Your task to perform on an android device: What's on the menu at McDonalds? Image 0: 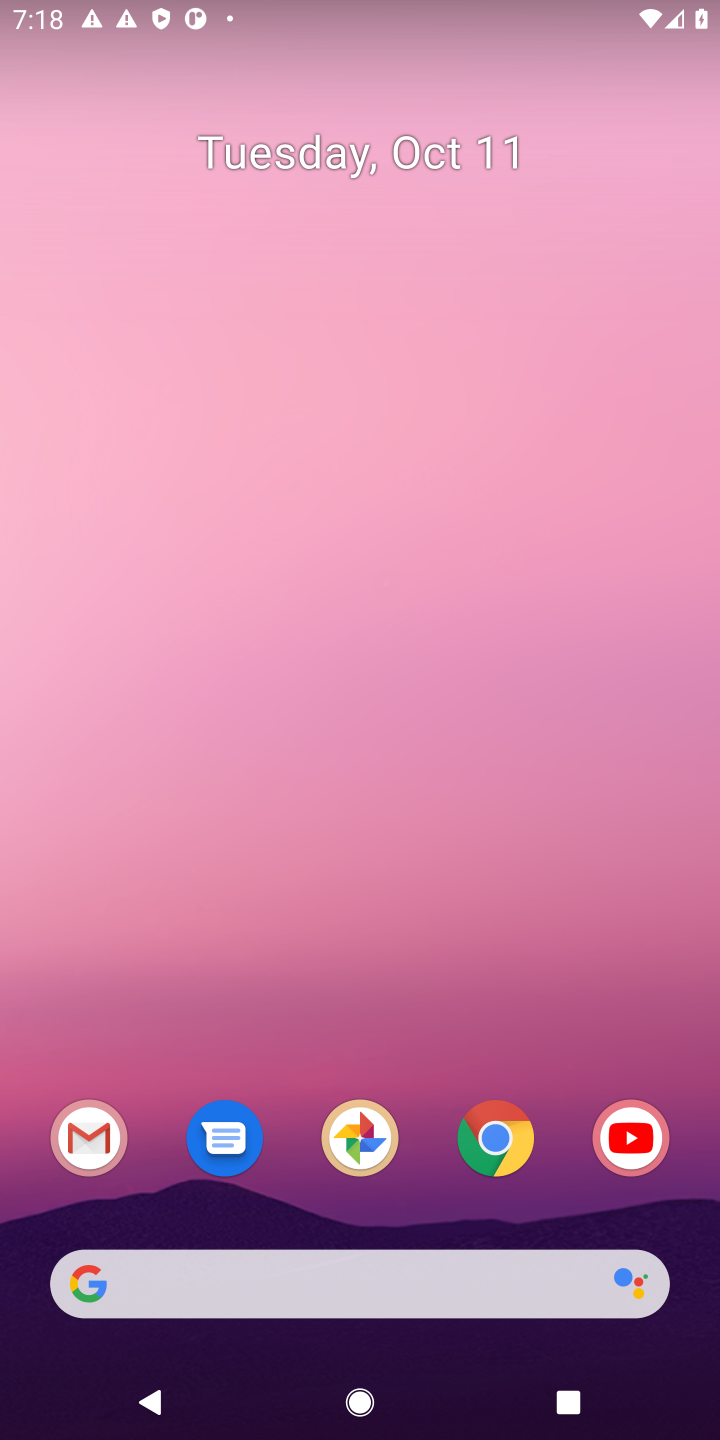
Step 0: click (432, 880)
Your task to perform on an android device: What's on the menu at McDonalds? Image 1: 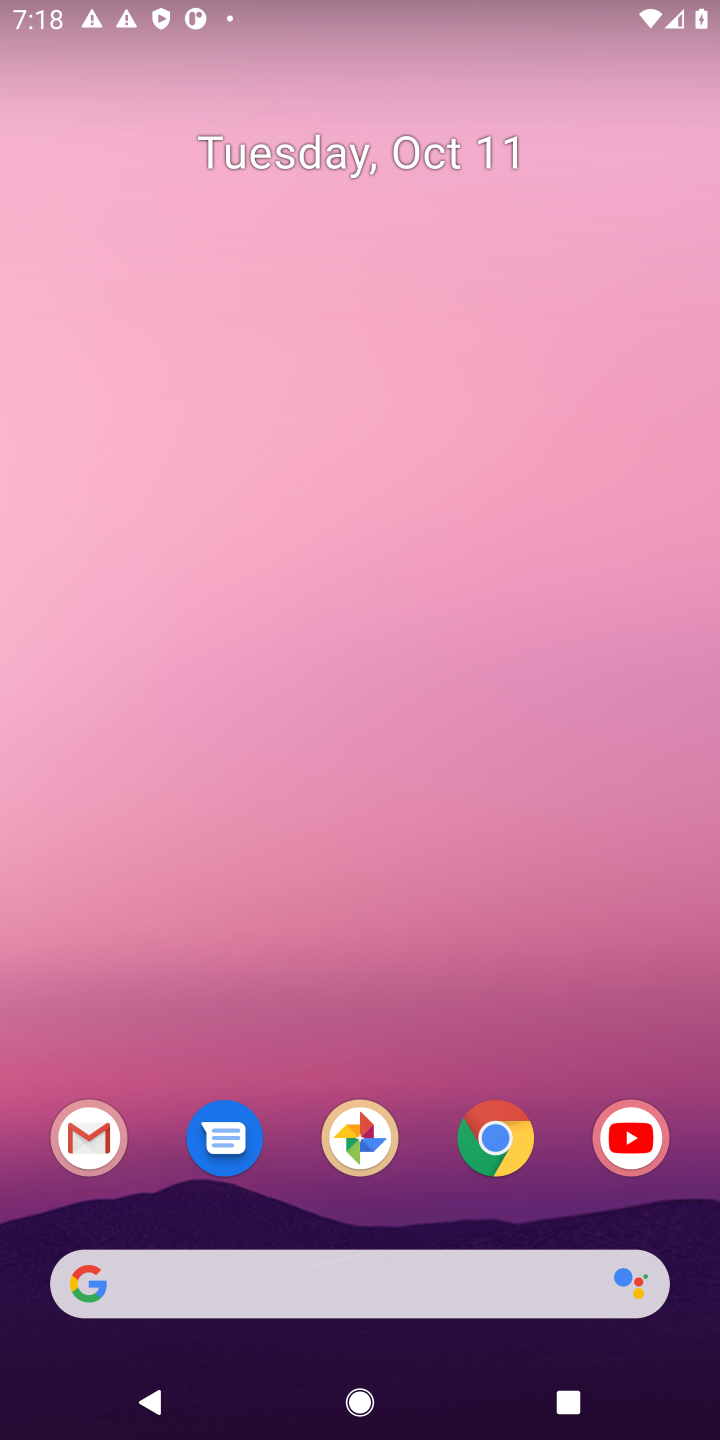
Step 1: click (358, 1280)
Your task to perform on an android device: What's on the menu at McDonalds? Image 2: 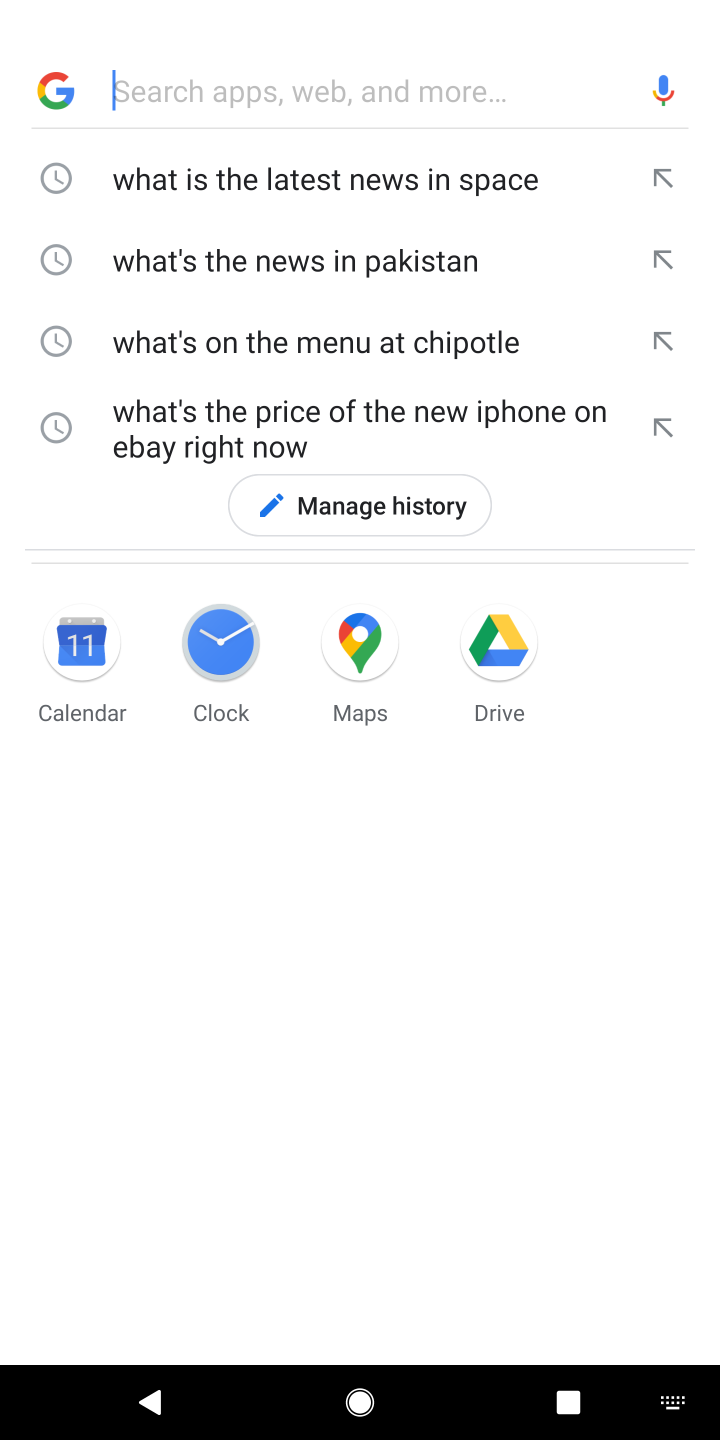
Step 2: type "What's on the menu at McDonalds?"
Your task to perform on an android device: What's on the menu at McDonalds? Image 3: 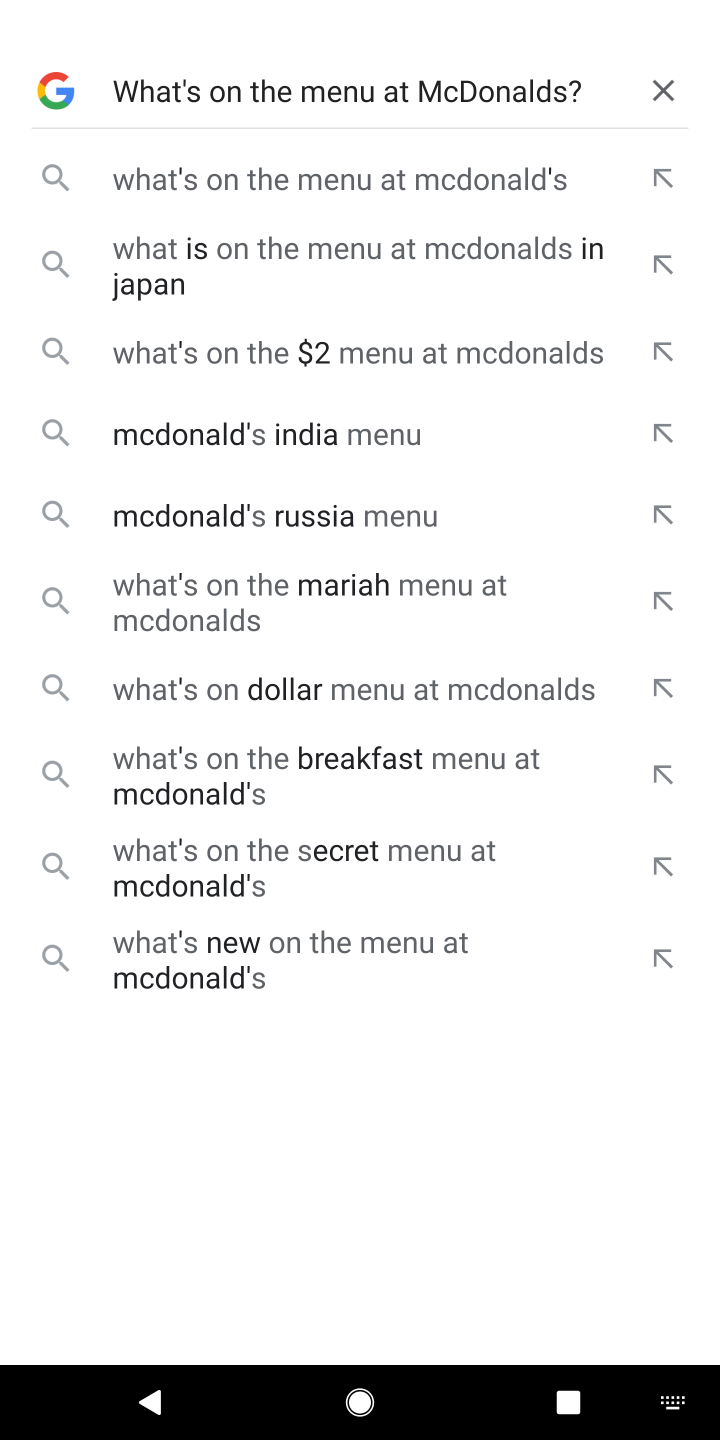
Step 3: click (231, 179)
Your task to perform on an android device: What's on the menu at McDonalds? Image 4: 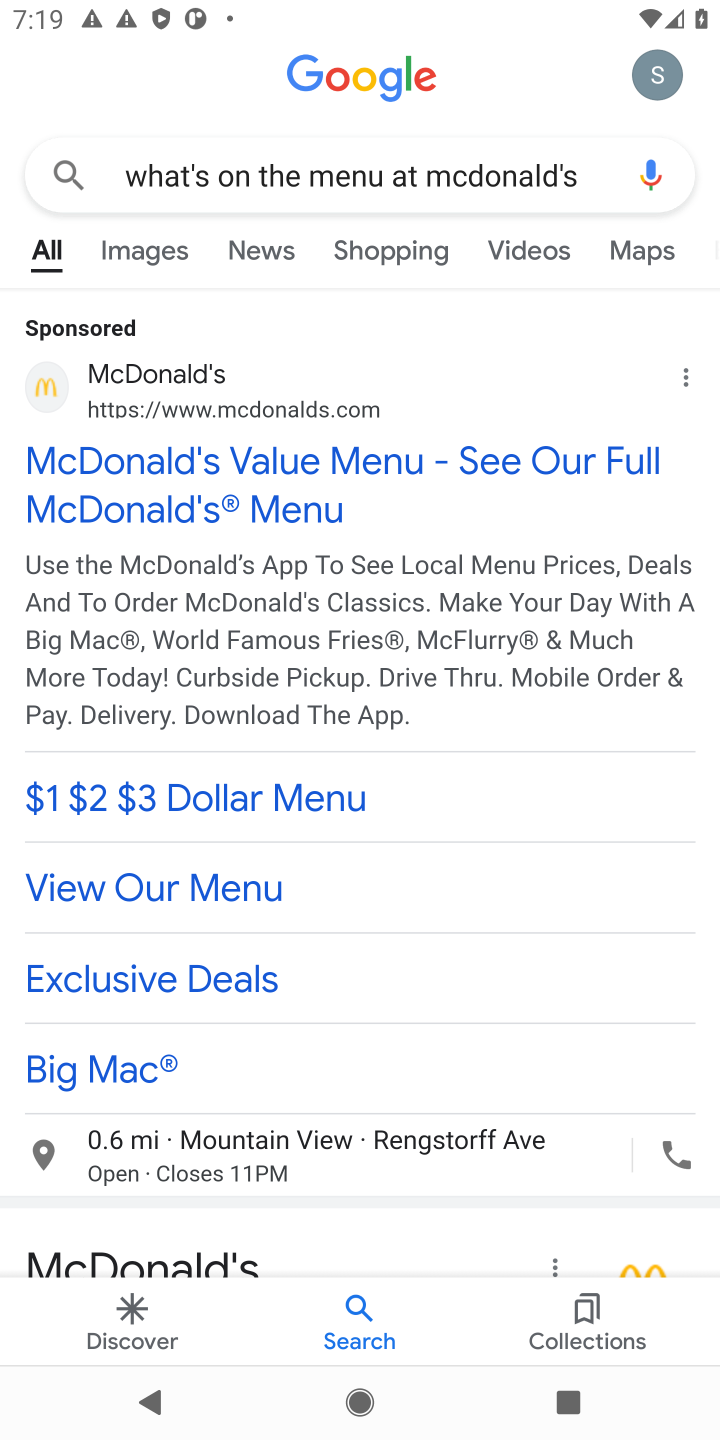
Step 4: click (203, 455)
Your task to perform on an android device: What's on the menu at McDonalds? Image 5: 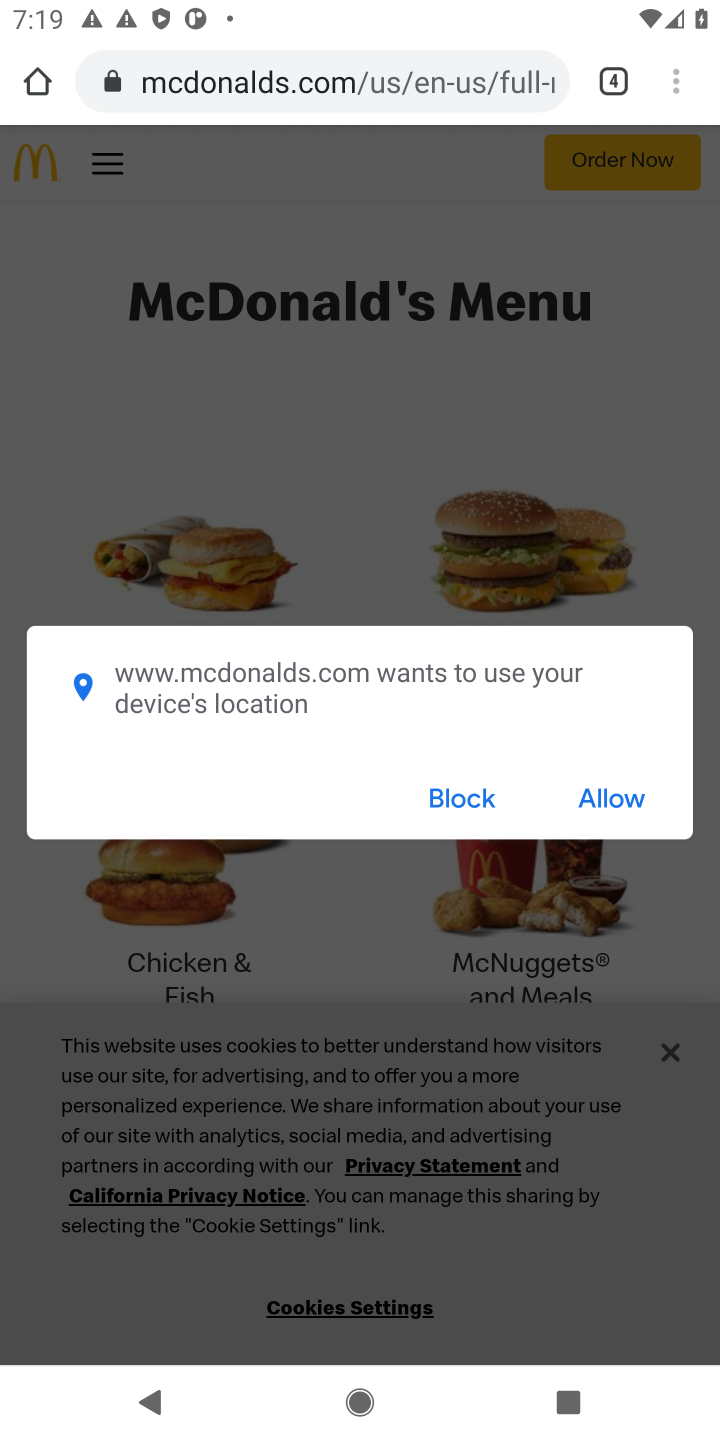
Step 5: click (619, 798)
Your task to perform on an android device: What's on the menu at McDonalds? Image 6: 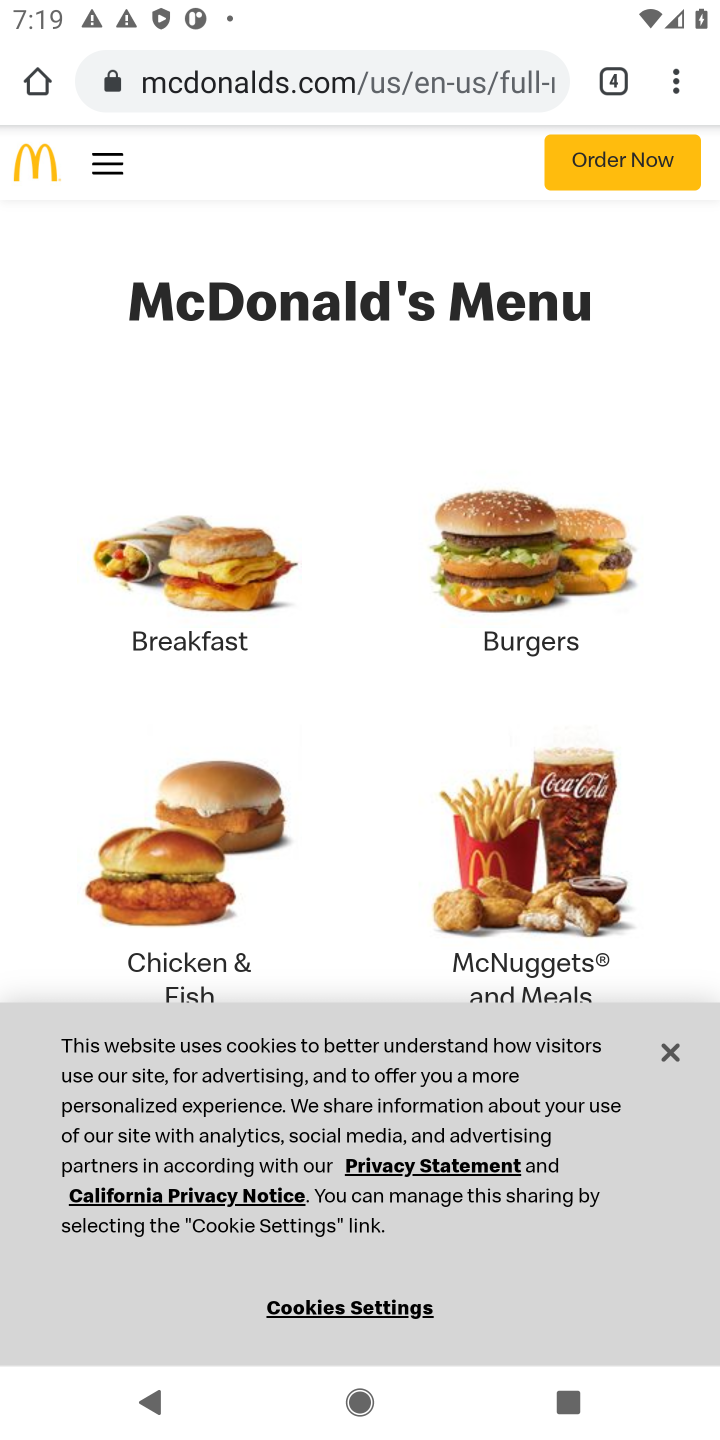
Step 6: click (666, 1046)
Your task to perform on an android device: What's on the menu at McDonalds? Image 7: 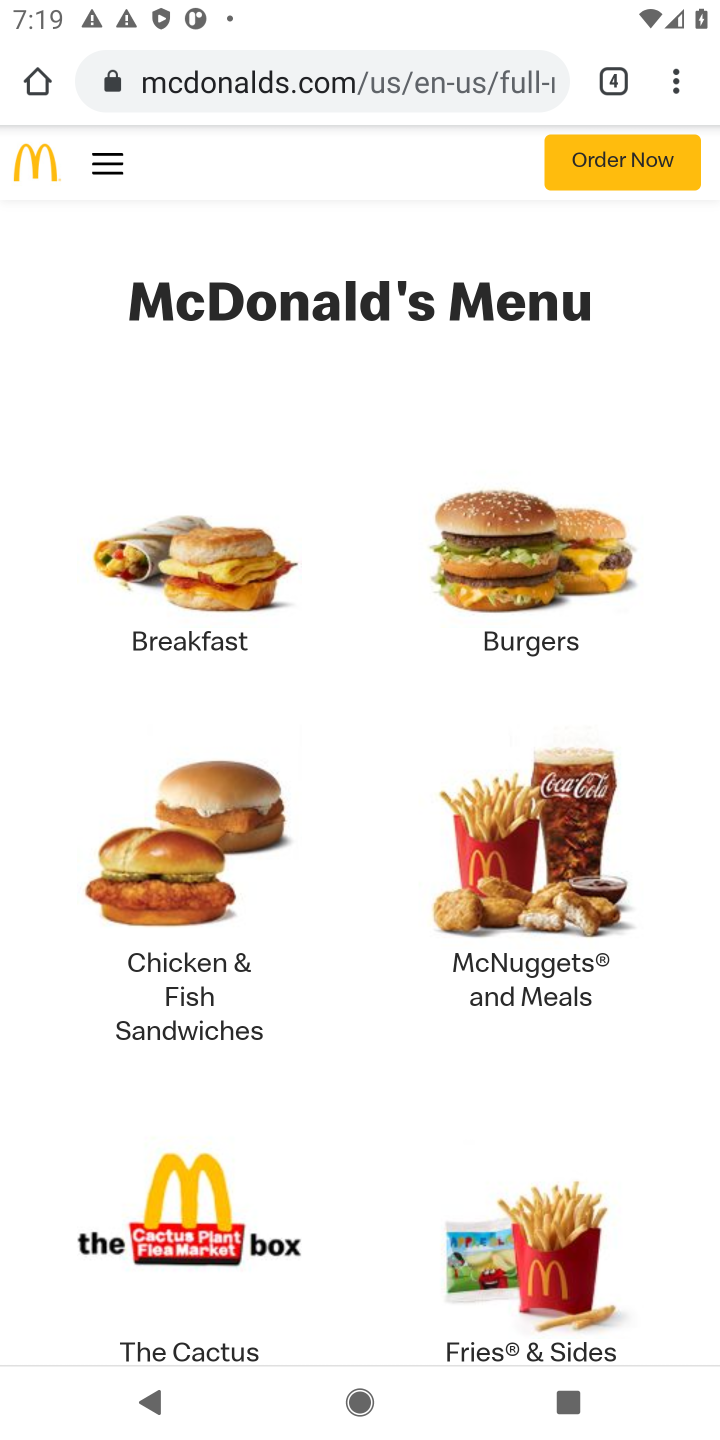
Step 7: task complete